Your task to perform on an android device: toggle translation in the chrome app Image 0: 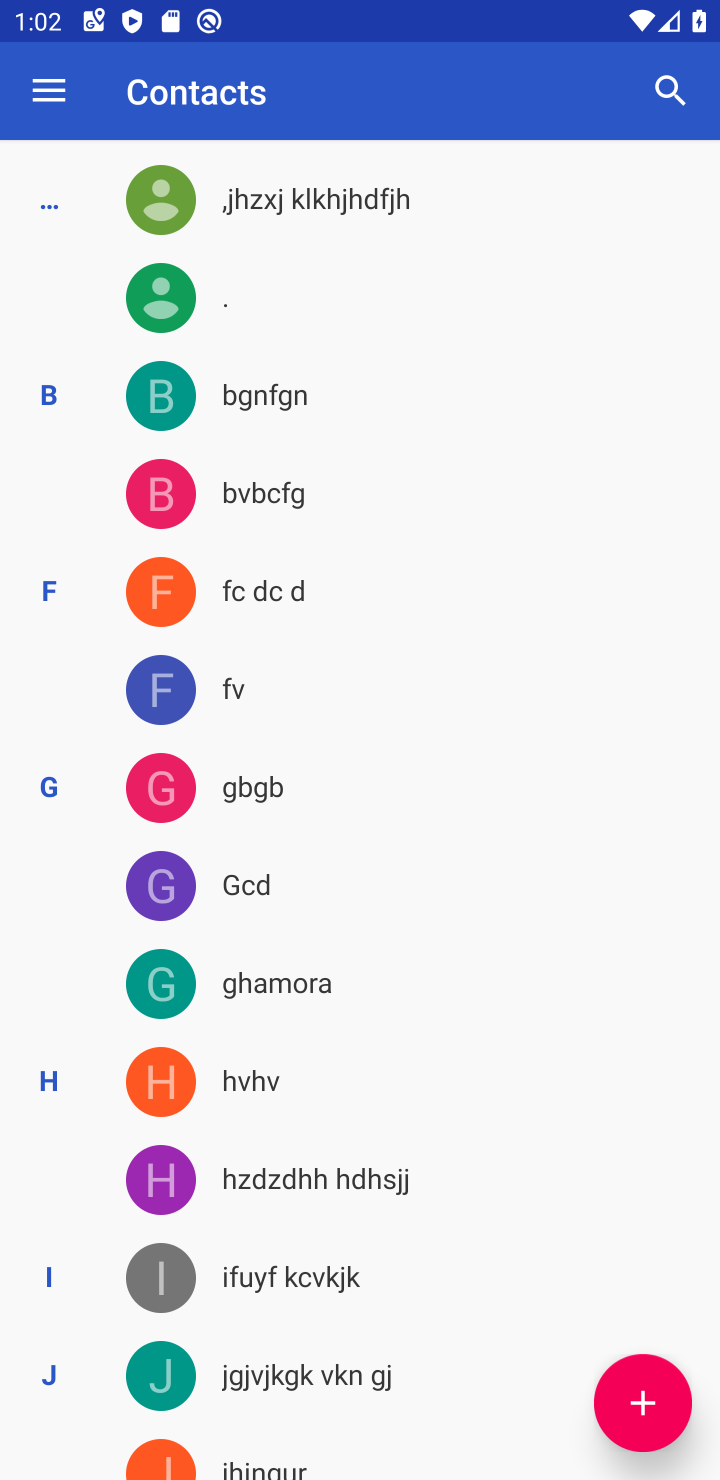
Step 0: press home button
Your task to perform on an android device: toggle translation in the chrome app Image 1: 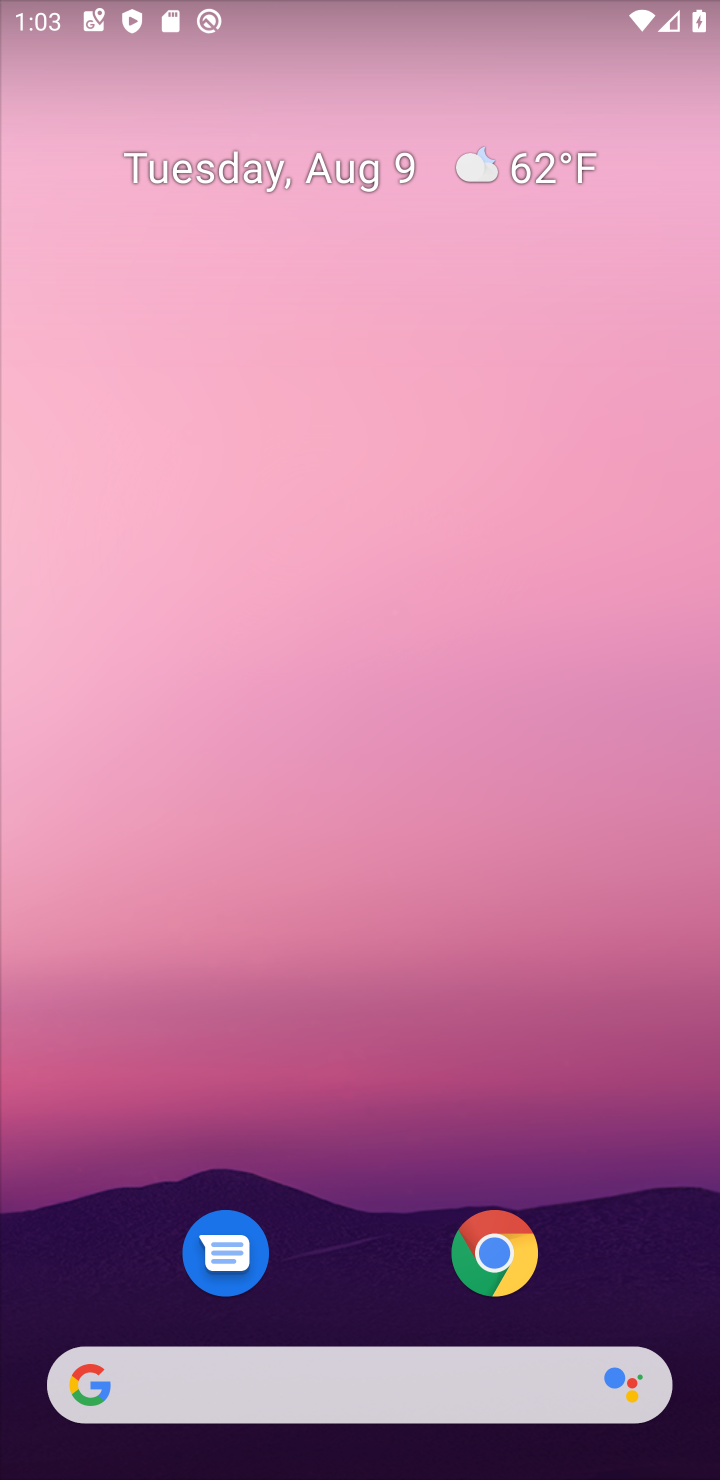
Step 1: drag from (673, 1282) to (423, 30)
Your task to perform on an android device: toggle translation in the chrome app Image 2: 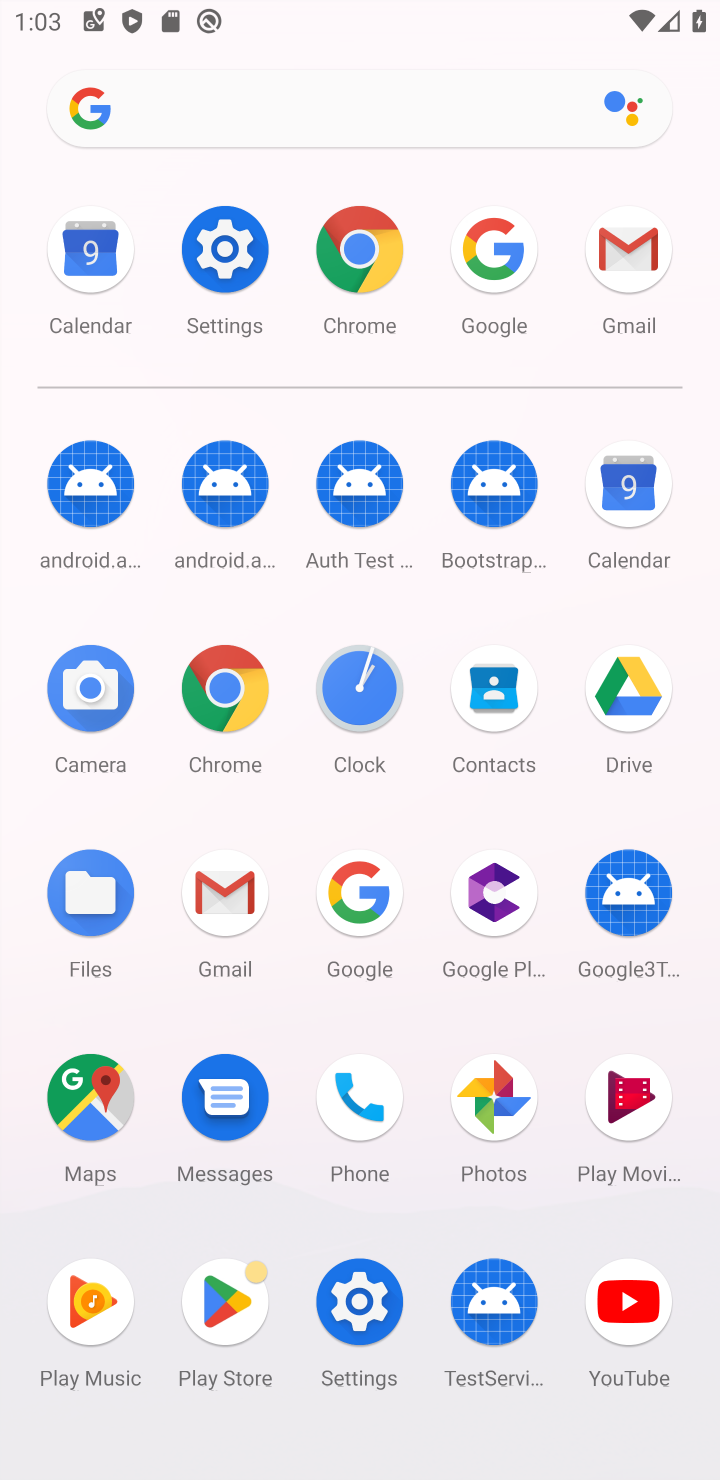
Step 2: click (224, 725)
Your task to perform on an android device: toggle translation in the chrome app Image 3: 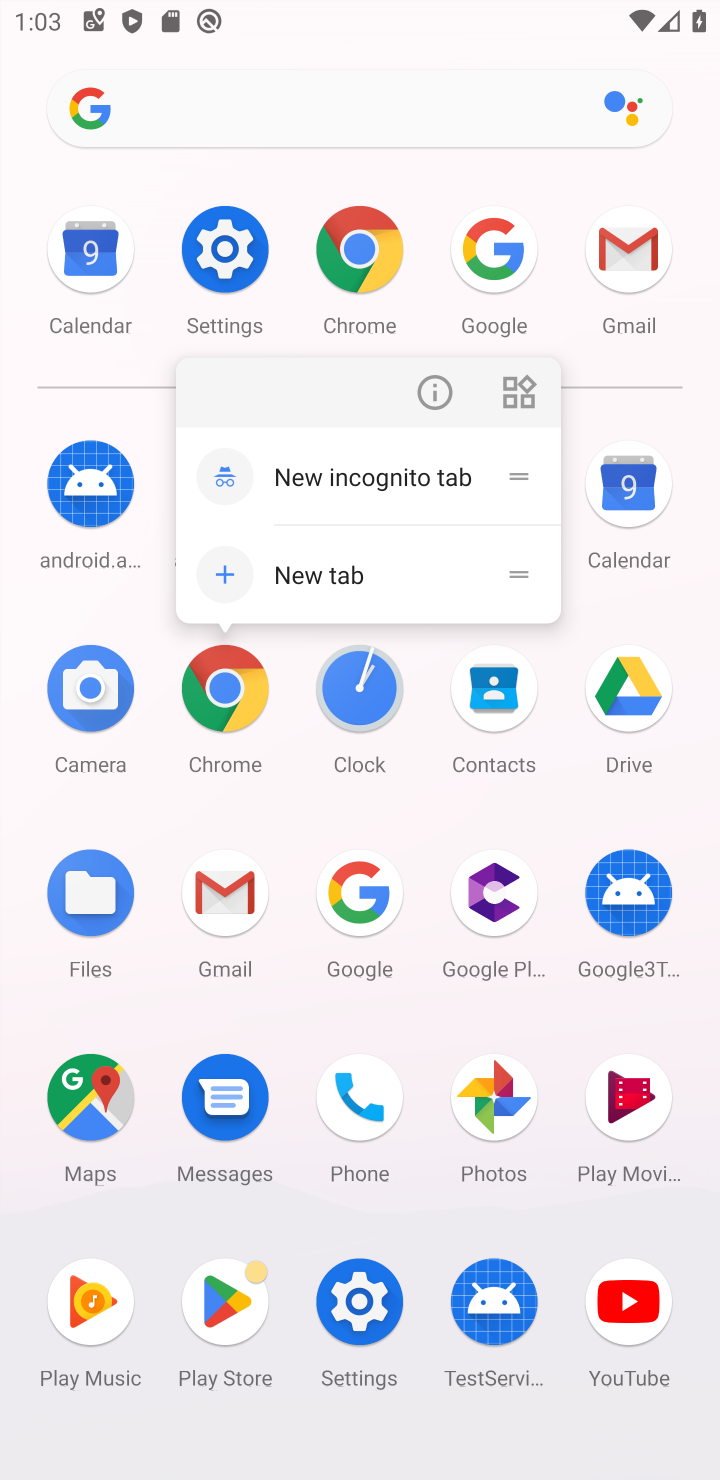
Step 3: click (224, 721)
Your task to perform on an android device: toggle translation in the chrome app Image 4: 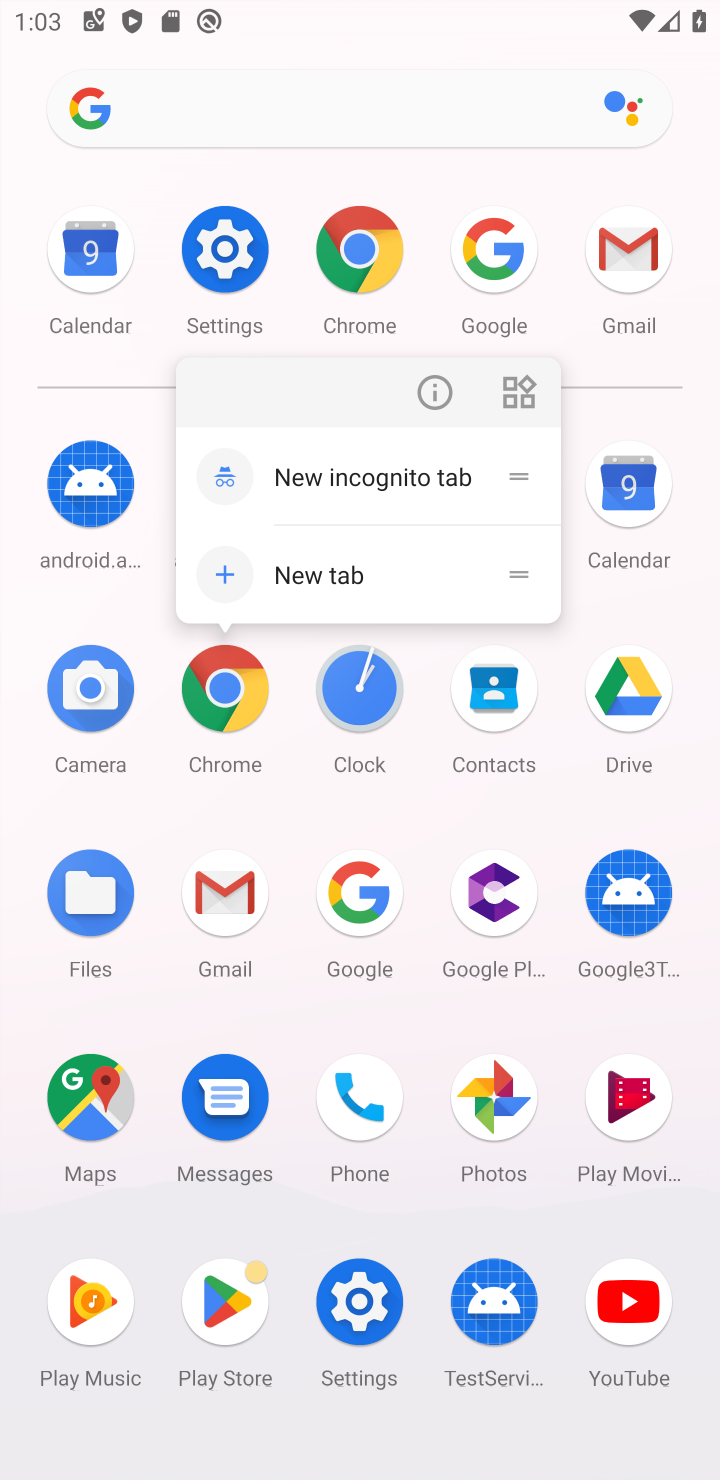
Step 4: click (226, 689)
Your task to perform on an android device: toggle translation in the chrome app Image 5: 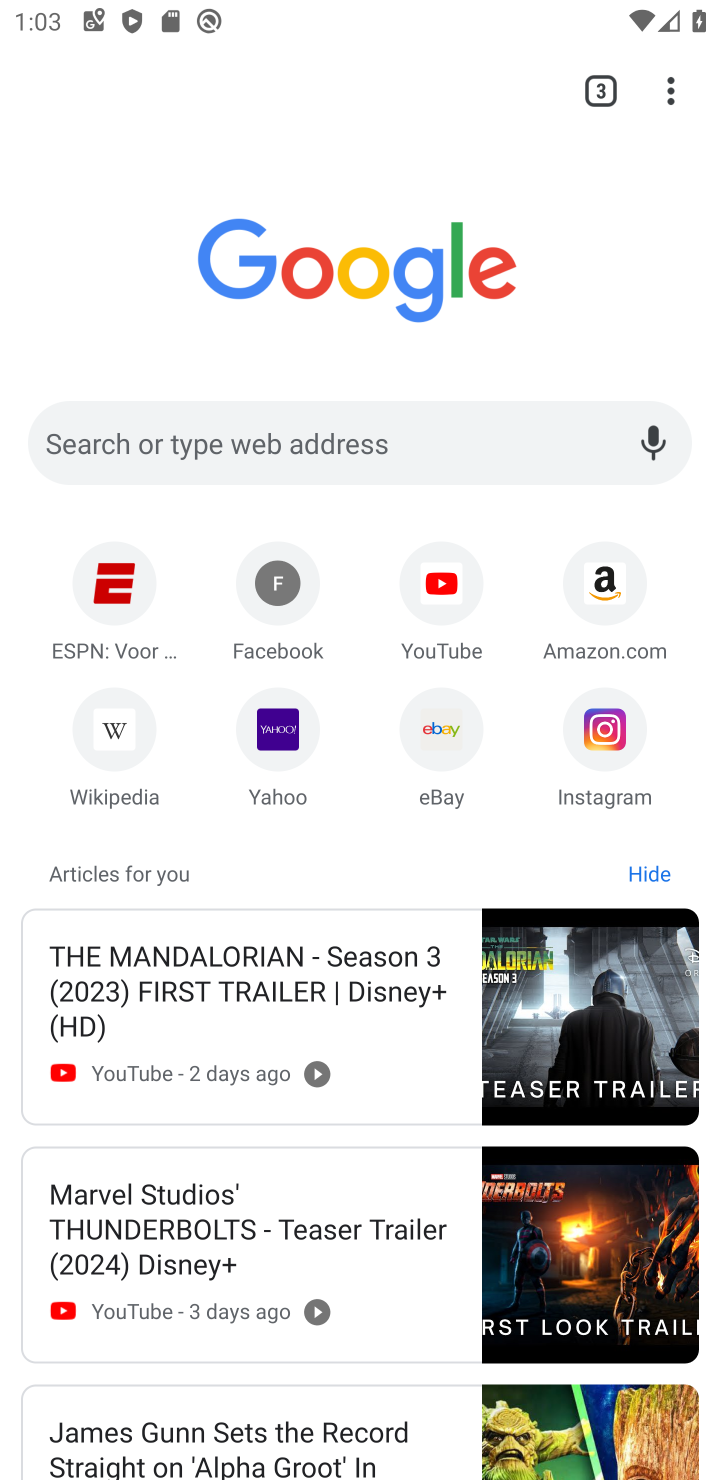
Step 5: click (665, 85)
Your task to perform on an android device: toggle translation in the chrome app Image 6: 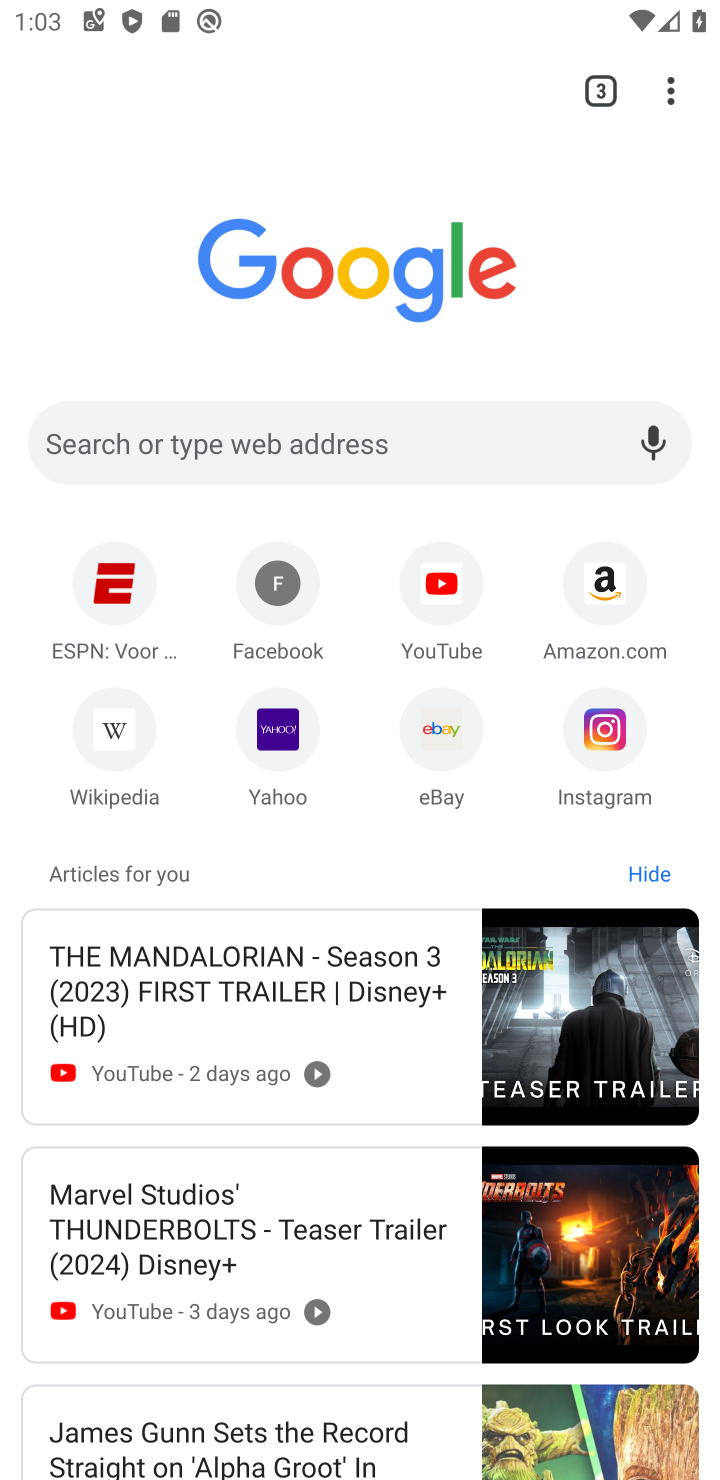
Step 6: click (665, 90)
Your task to perform on an android device: toggle translation in the chrome app Image 7: 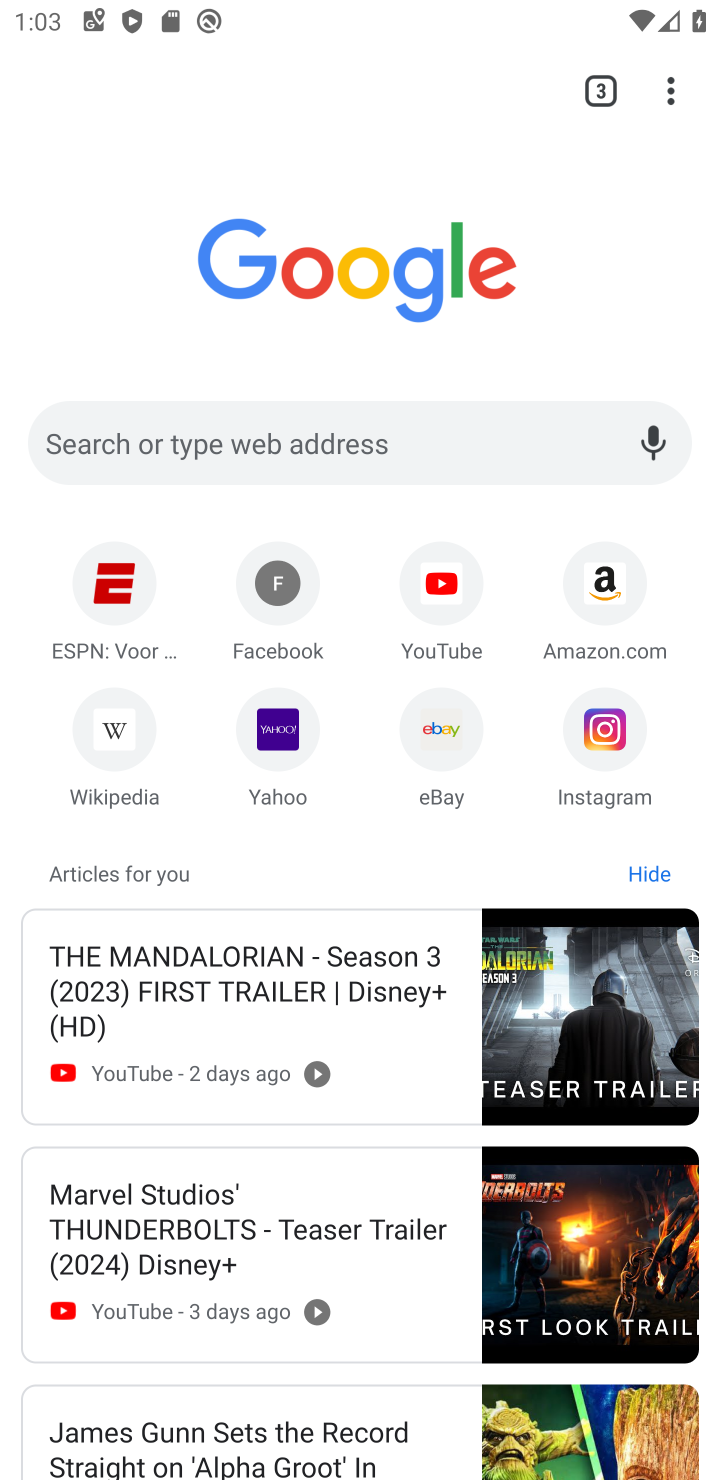
Step 7: click (674, 81)
Your task to perform on an android device: toggle translation in the chrome app Image 8: 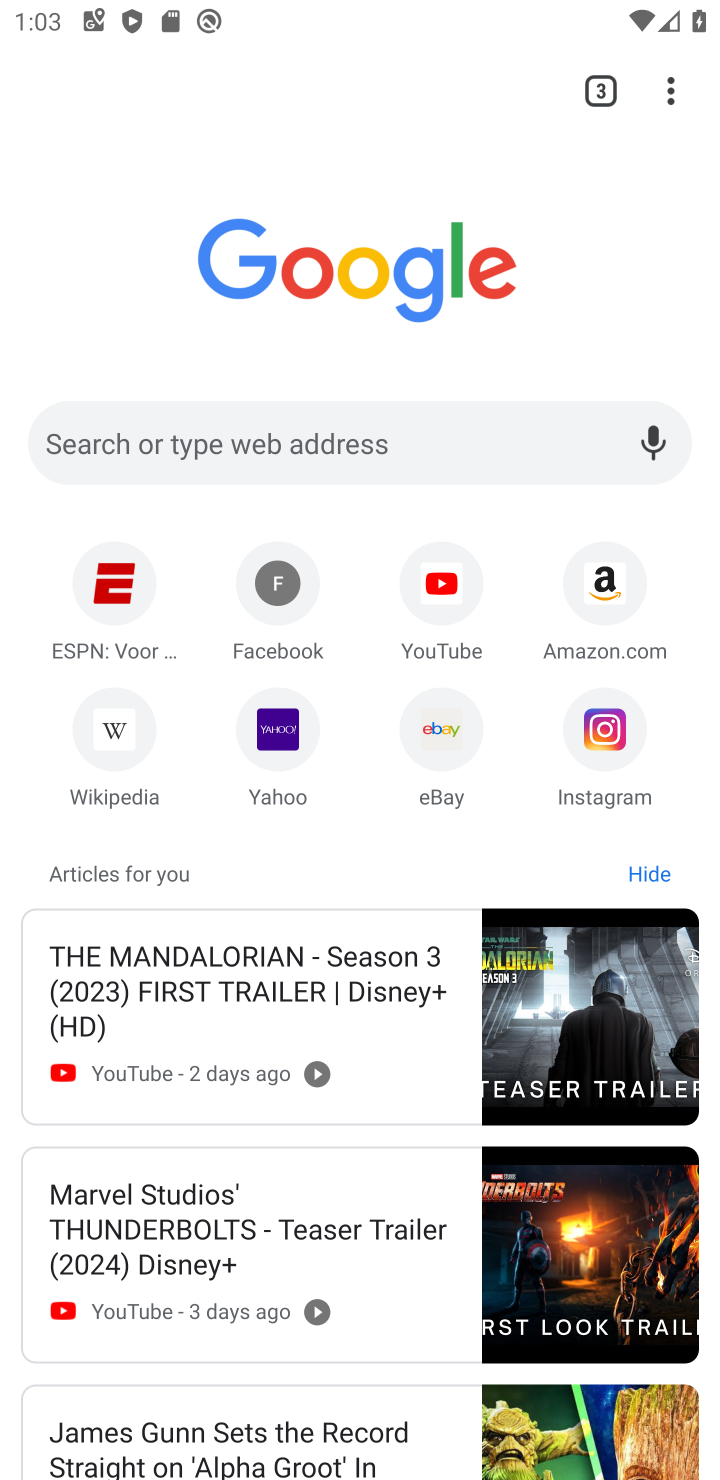
Step 8: click (674, 81)
Your task to perform on an android device: toggle translation in the chrome app Image 9: 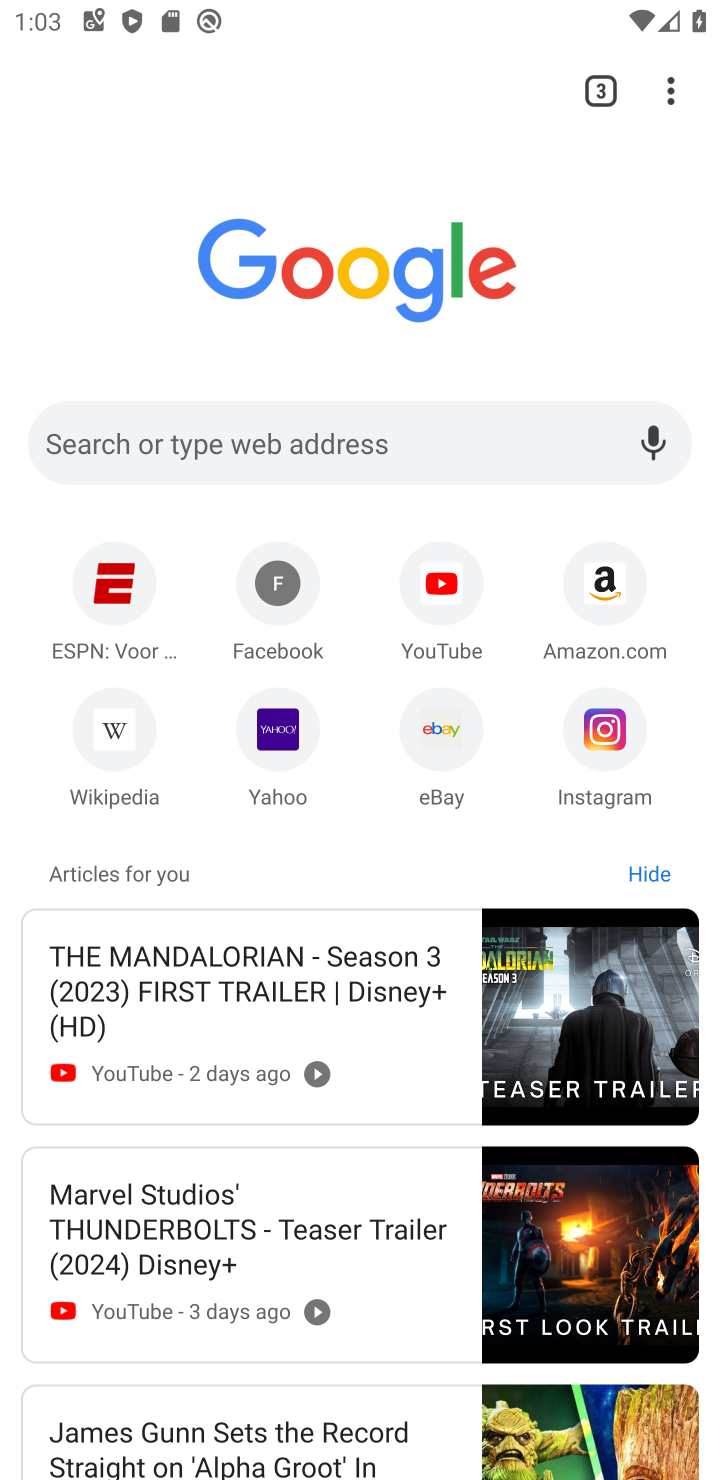
Step 9: task complete